Your task to perform on an android device: Open my contact list Image 0: 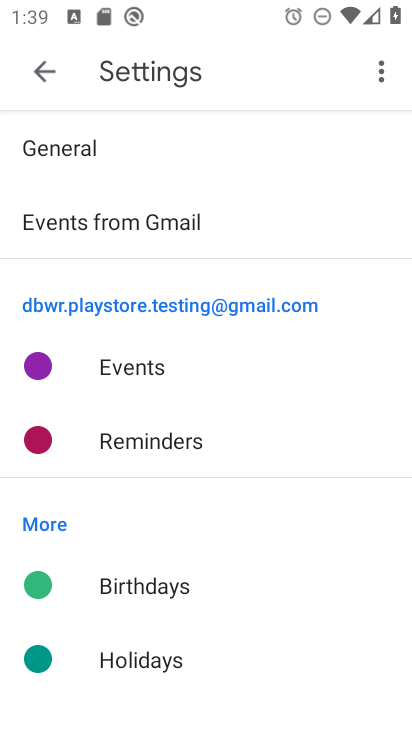
Step 0: press home button
Your task to perform on an android device: Open my contact list Image 1: 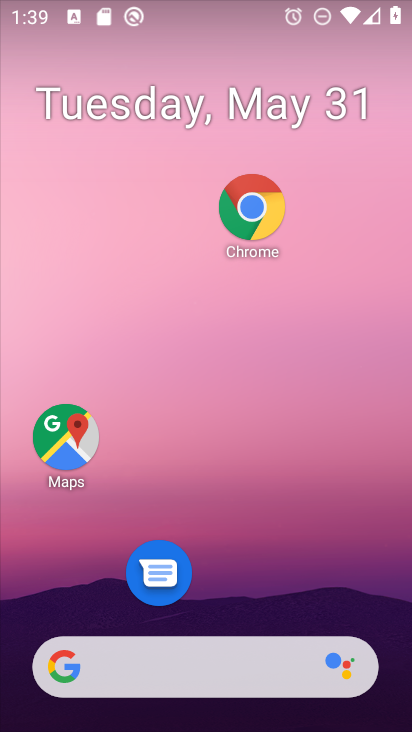
Step 1: drag from (209, 669) to (260, 312)
Your task to perform on an android device: Open my contact list Image 2: 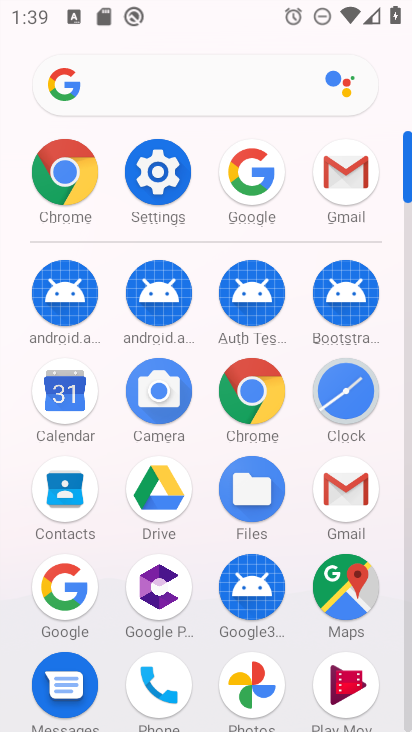
Step 2: click (74, 487)
Your task to perform on an android device: Open my contact list Image 3: 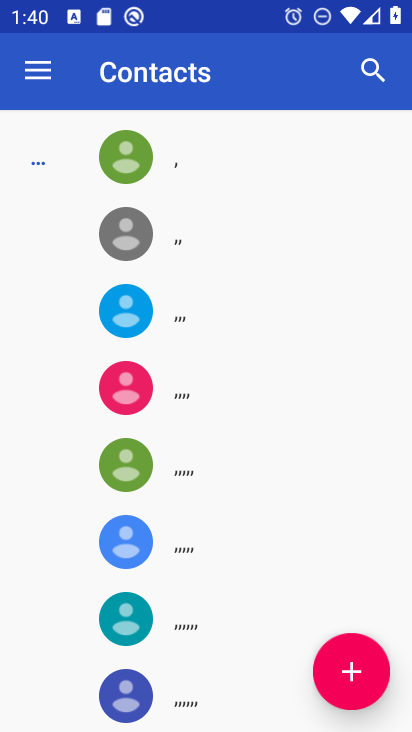
Step 3: task complete